Your task to perform on an android device: Search for vegetarian restaurants on Maps Image 0: 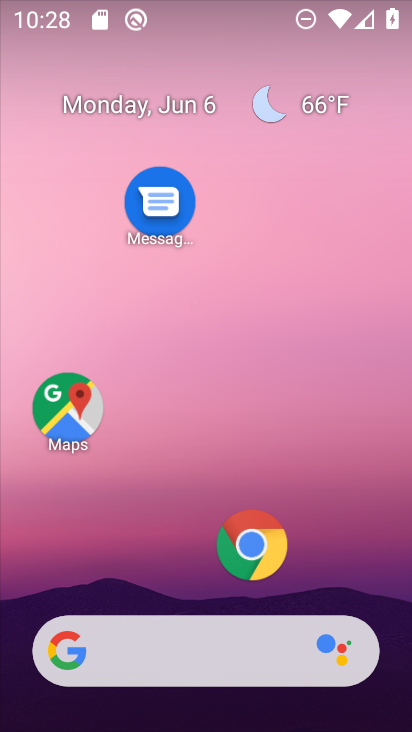
Step 0: drag from (188, 595) to (326, 50)
Your task to perform on an android device: Search for vegetarian restaurants on Maps Image 1: 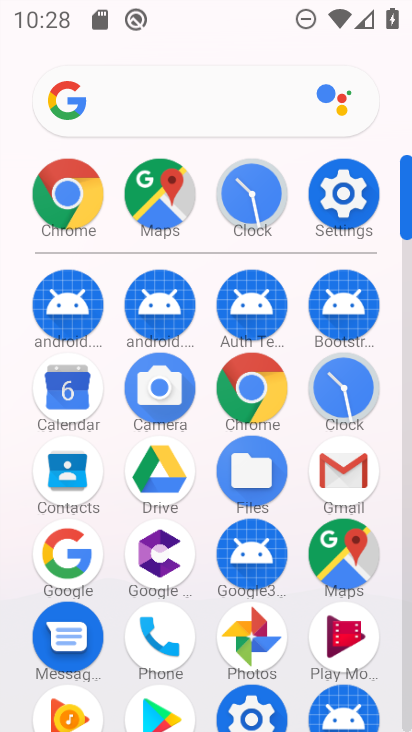
Step 1: click (318, 569)
Your task to perform on an android device: Search for vegetarian restaurants on Maps Image 2: 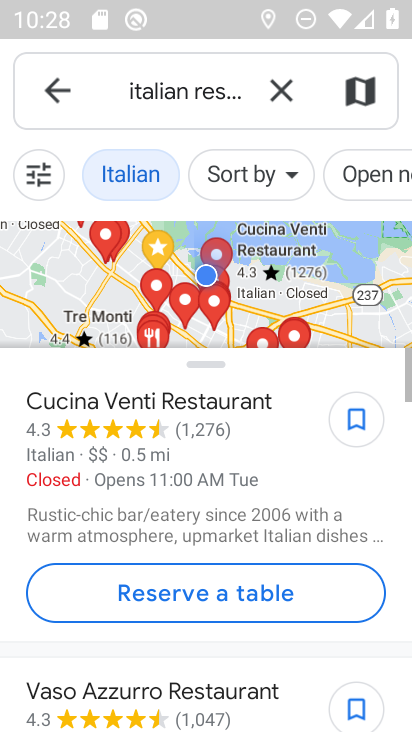
Step 2: click (275, 99)
Your task to perform on an android device: Search for vegetarian restaurants on Maps Image 3: 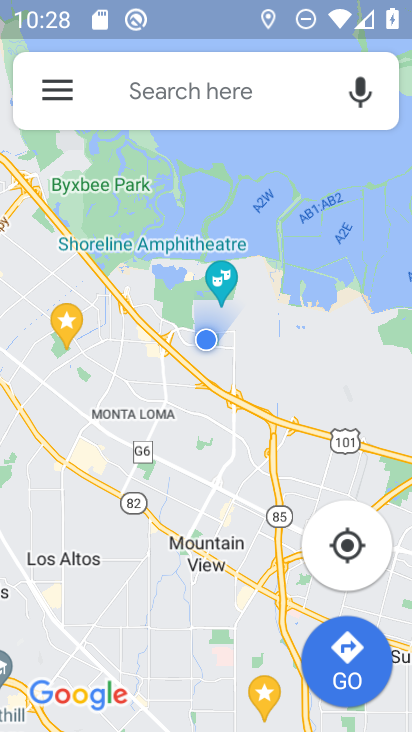
Step 3: click (230, 110)
Your task to perform on an android device: Search for vegetarian restaurants on Maps Image 4: 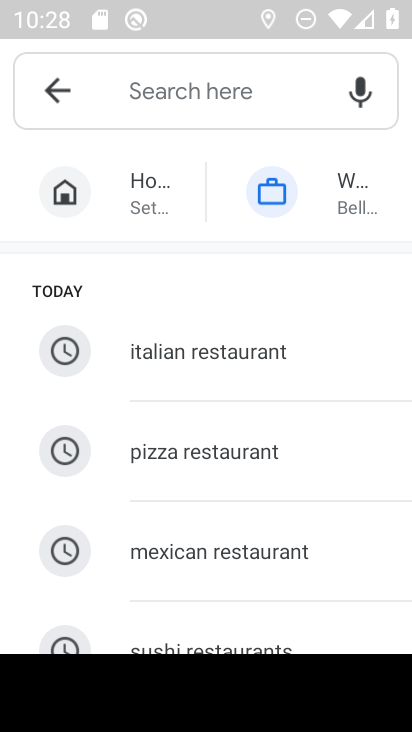
Step 4: type "vegetarian restaurants "
Your task to perform on an android device: Search for vegetarian restaurants on Maps Image 5: 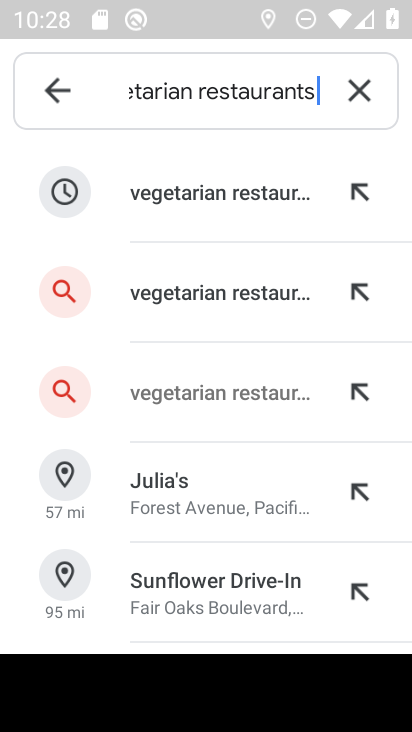
Step 5: click (254, 196)
Your task to perform on an android device: Search for vegetarian restaurants on Maps Image 6: 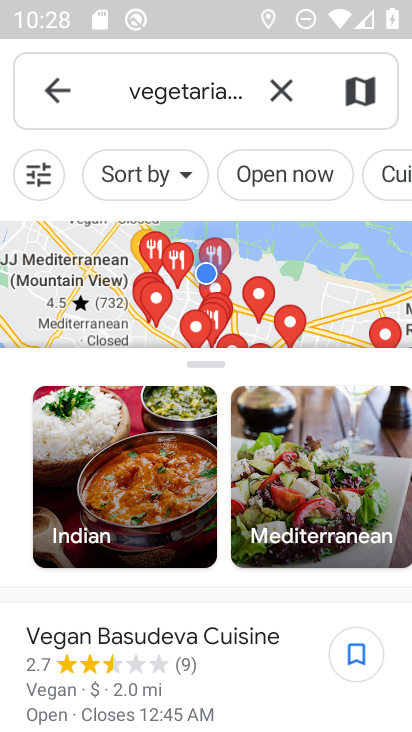
Step 6: task complete